Your task to perform on an android device: Go to accessibility settings Image 0: 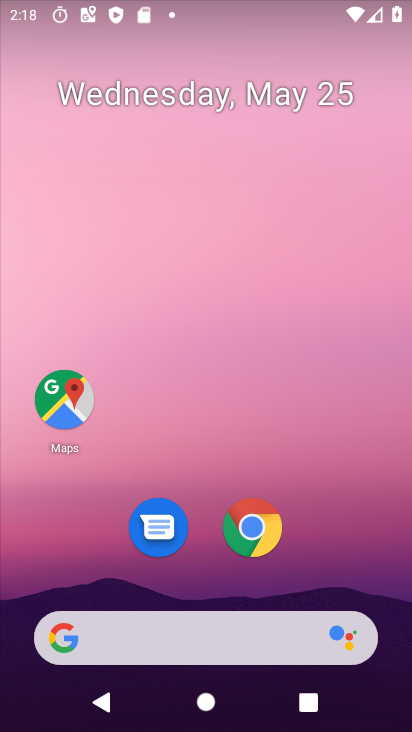
Step 0: drag from (204, 549) to (287, 116)
Your task to perform on an android device: Go to accessibility settings Image 1: 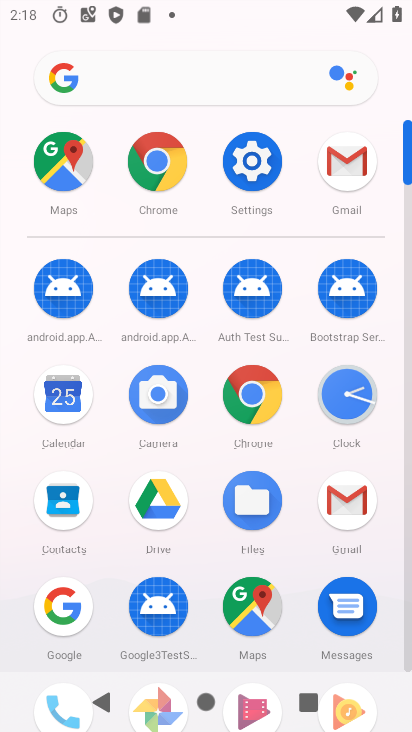
Step 1: click (247, 146)
Your task to perform on an android device: Go to accessibility settings Image 2: 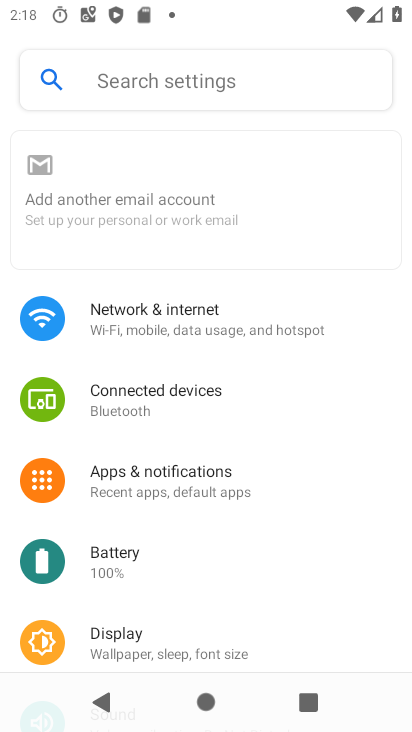
Step 2: drag from (257, 588) to (328, 27)
Your task to perform on an android device: Go to accessibility settings Image 3: 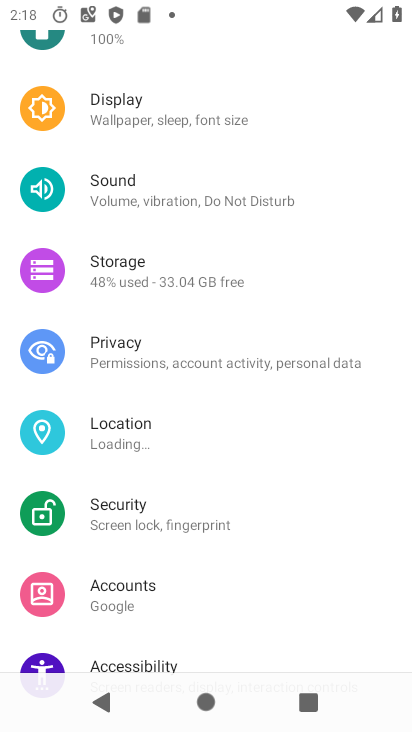
Step 3: drag from (203, 585) to (303, 126)
Your task to perform on an android device: Go to accessibility settings Image 4: 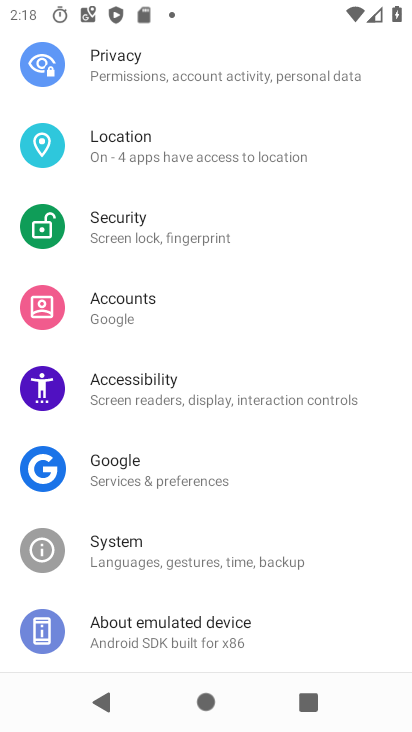
Step 4: click (181, 386)
Your task to perform on an android device: Go to accessibility settings Image 5: 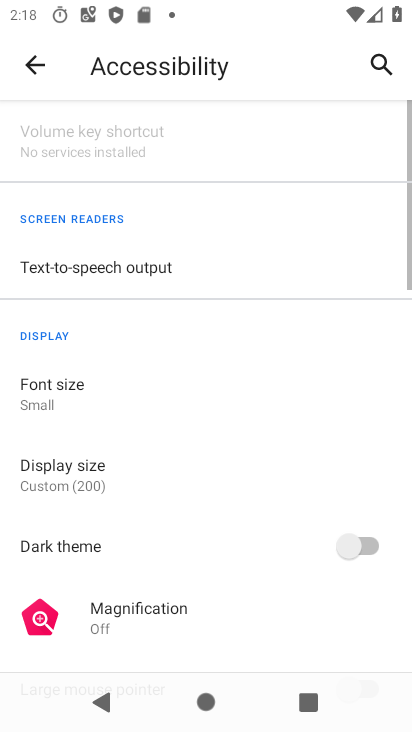
Step 5: task complete